Your task to perform on an android device: check android version Image 0: 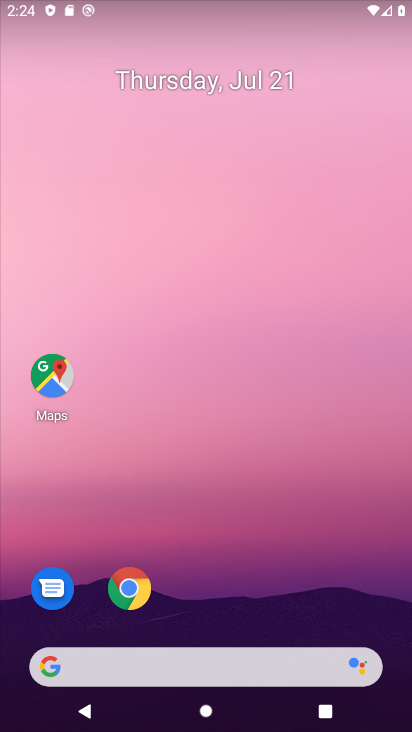
Step 0: drag from (222, 561) to (157, 31)
Your task to perform on an android device: check android version Image 1: 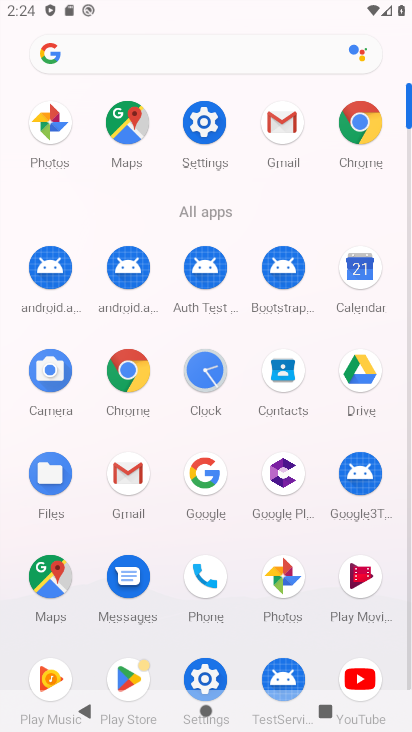
Step 1: click (202, 117)
Your task to perform on an android device: check android version Image 2: 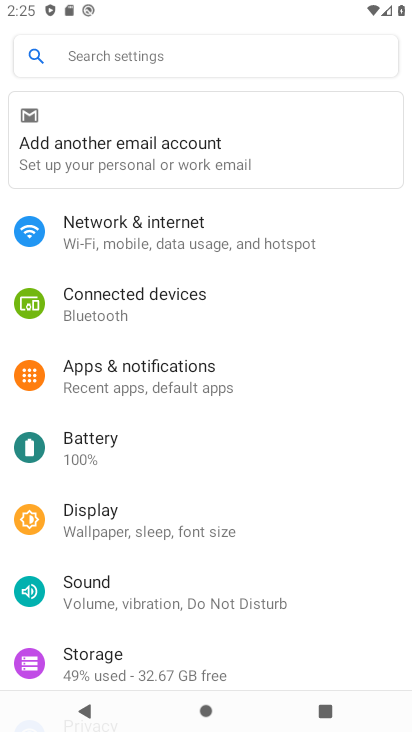
Step 2: drag from (241, 638) to (164, 133)
Your task to perform on an android device: check android version Image 3: 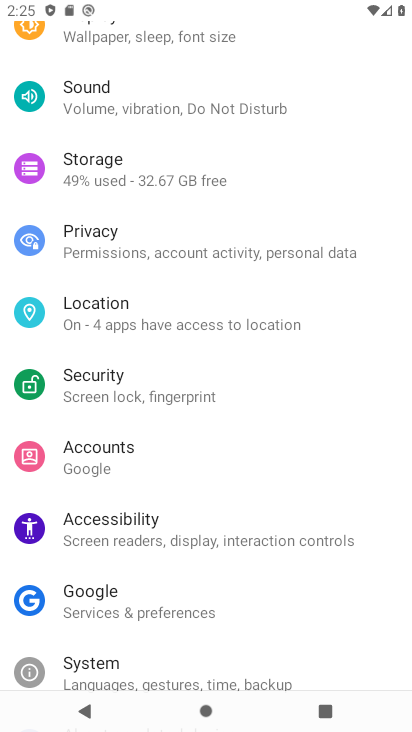
Step 3: drag from (207, 640) to (203, 356)
Your task to perform on an android device: check android version Image 4: 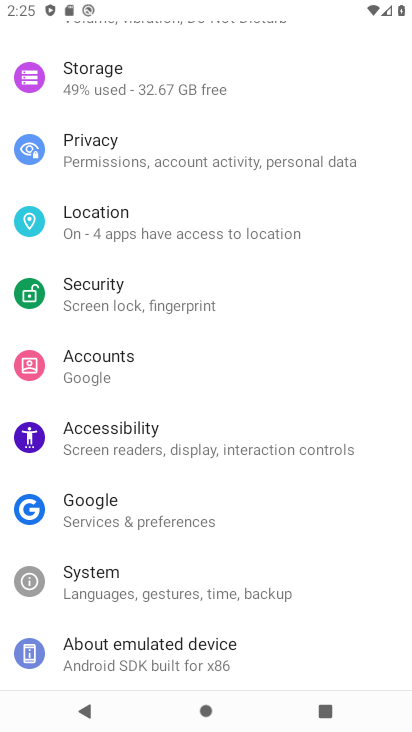
Step 4: click (164, 636)
Your task to perform on an android device: check android version Image 5: 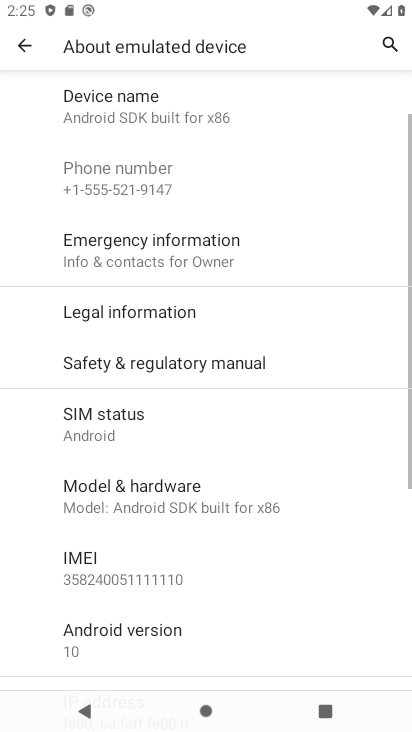
Step 5: task complete